Your task to perform on an android device: open a bookmark in the chrome app Image 0: 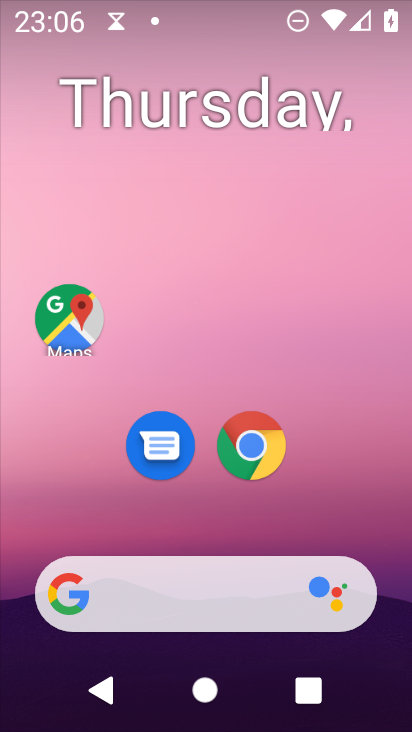
Step 0: drag from (222, 725) to (229, 173)
Your task to perform on an android device: open a bookmark in the chrome app Image 1: 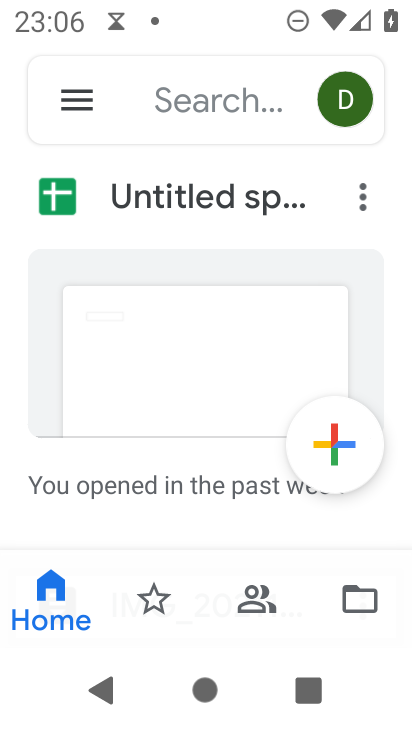
Step 1: press home button
Your task to perform on an android device: open a bookmark in the chrome app Image 2: 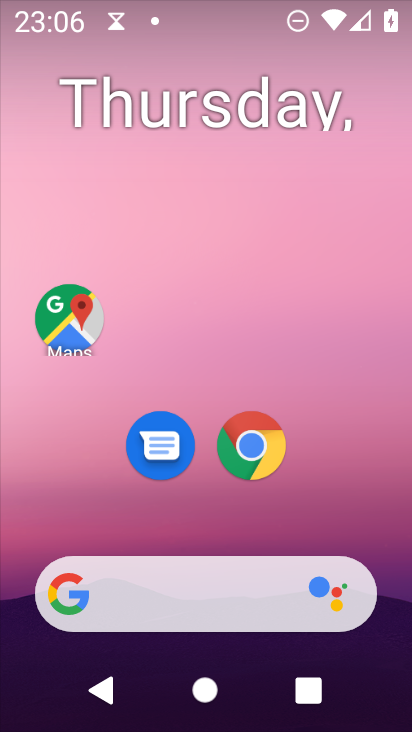
Step 2: click (259, 449)
Your task to perform on an android device: open a bookmark in the chrome app Image 3: 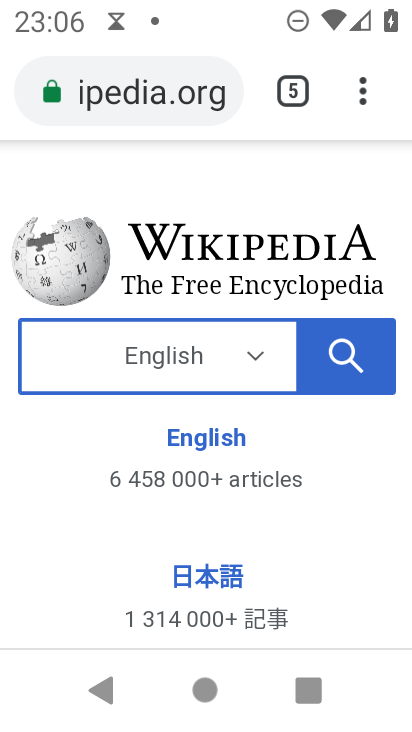
Step 3: click (362, 103)
Your task to perform on an android device: open a bookmark in the chrome app Image 4: 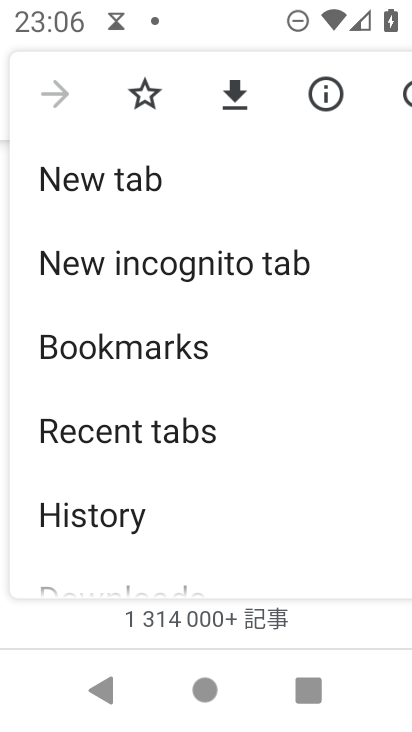
Step 4: click (130, 352)
Your task to perform on an android device: open a bookmark in the chrome app Image 5: 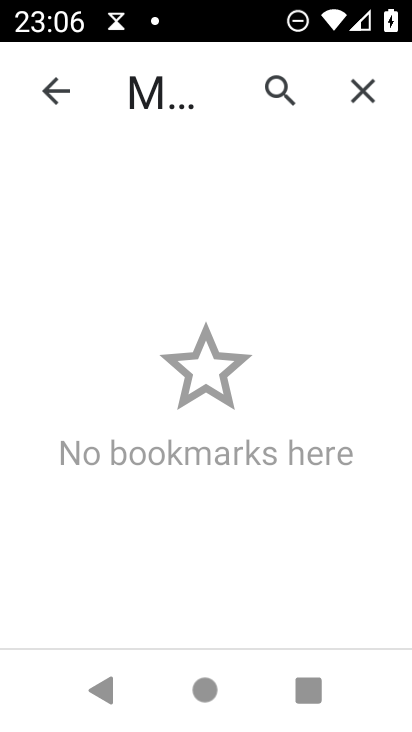
Step 5: task complete